Your task to perform on an android device: Do I have any events tomorrow? Image 0: 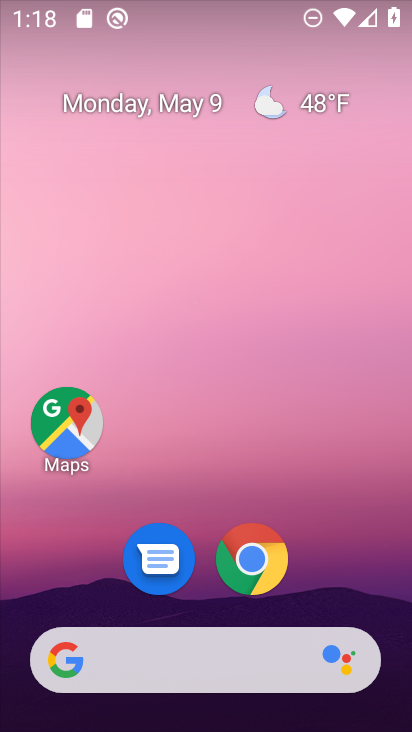
Step 0: drag from (220, 553) to (282, 222)
Your task to perform on an android device: Do I have any events tomorrow? Image 1: 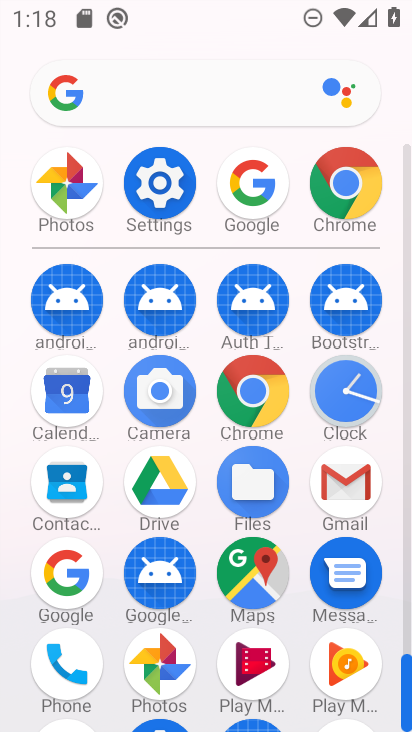
Step 1: drag from (198, 658) to (208, 336)
Your task to perform on an android device: Do I have any events tomorrow? Image 2: 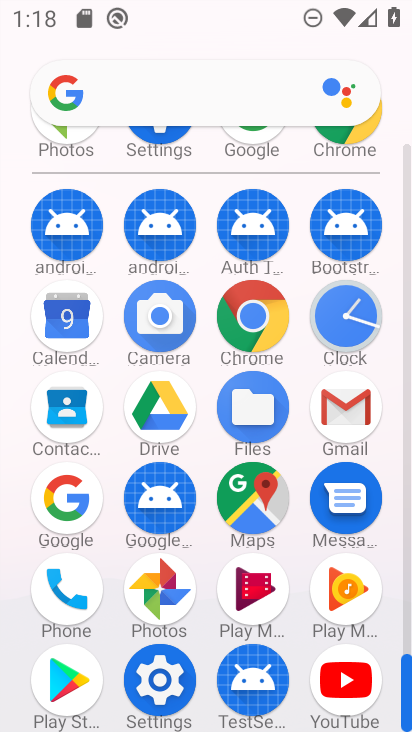
Step 2: drag from (203, 676) to (213, 431)
Your task to perform on an android device: Do I have any events tomorrow? Image 3: 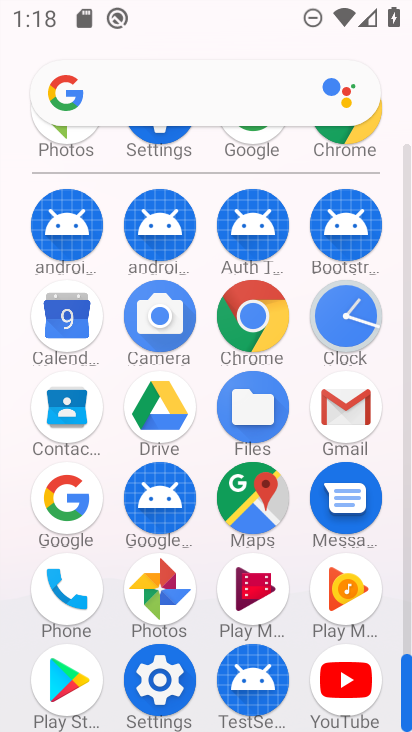
Step 3: click (77, 319)
Your task to perform on an android device: Do I have any events tomorrow? Image 4: 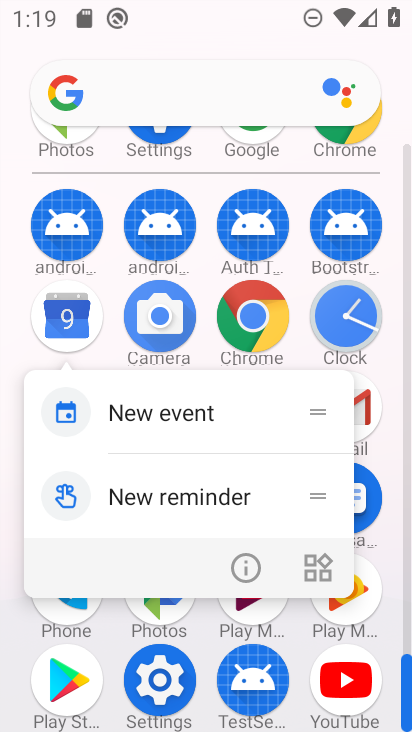
Step 4: click (246, 569)
Your task to perform on an android device: Do I have any events tomorrow? Image 5: 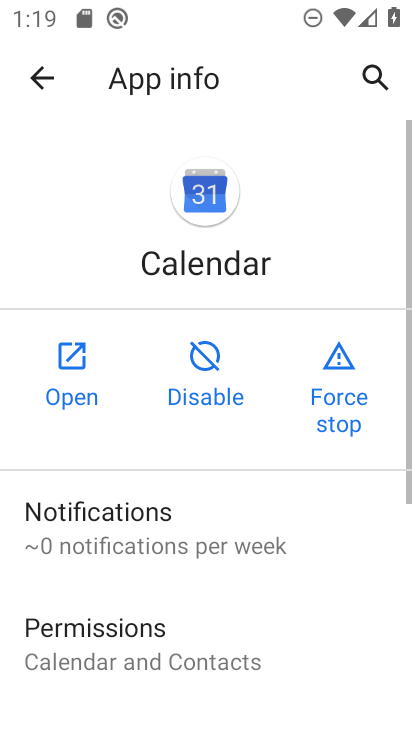
Step 5: click (98, 337)
Your task to perform on an android device: Do I have any events tomorrow? Image 6: 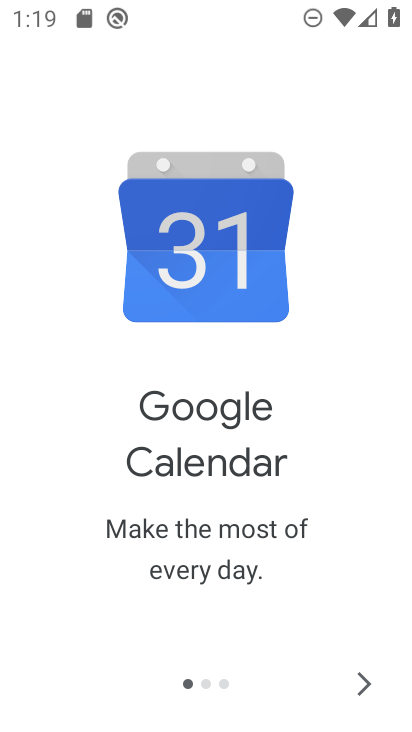
Step 6: click (351, 667)
Your task to perform on an android device: Do I have any events tomorrow? Image 7: 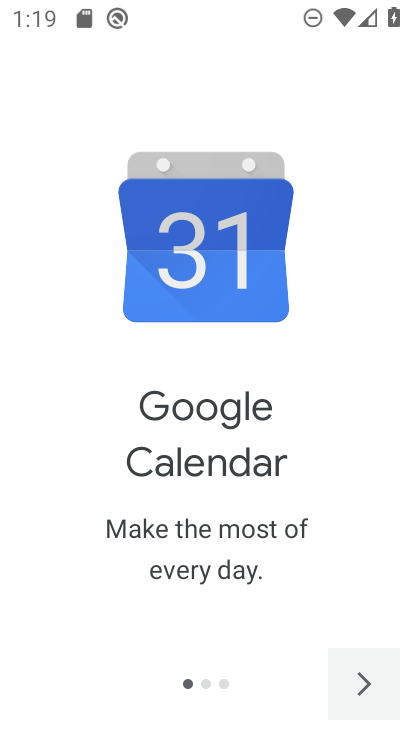
Step 7: click (351, 667)
Your task to perform on an android device: Do I have any events tomorrow? Image 8: 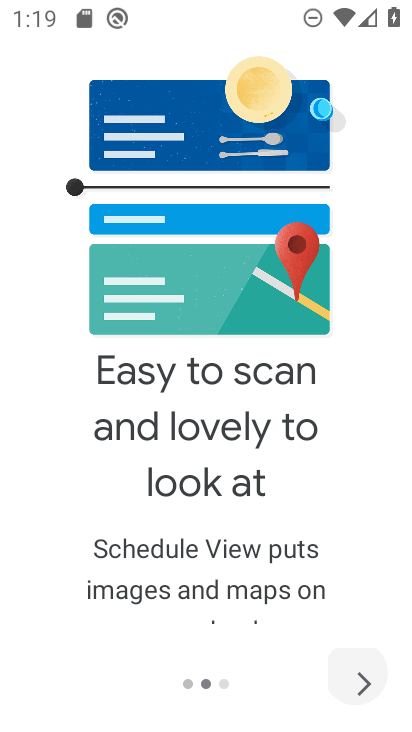
Step 8: click (351, 667)
Your task to perform on an android device: Do I have any events tomorrow? Image 9: 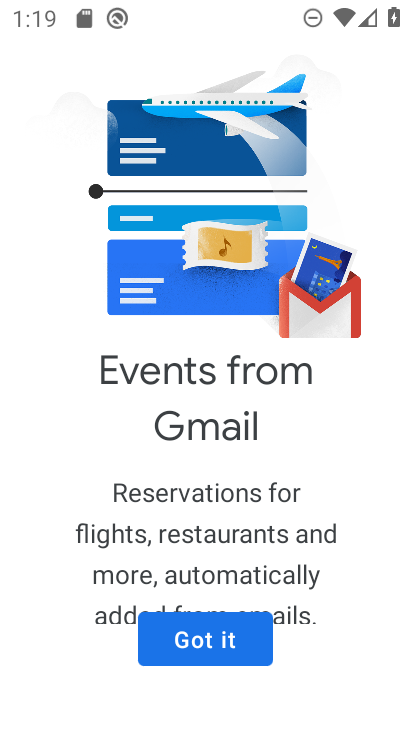
Step 9: click (351, 667)
Your task to perform on an android device: Do I have any events tomorrow? Image 10: 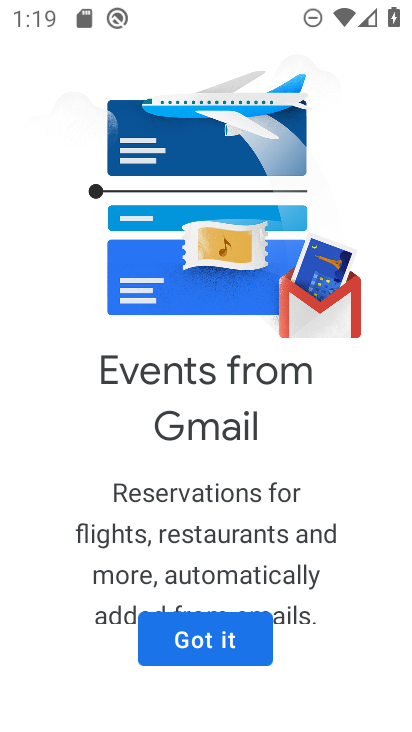
Step 10: click (124, 659)
Your task to perform on an android device: Do I have any events tomorrow? Image 11: 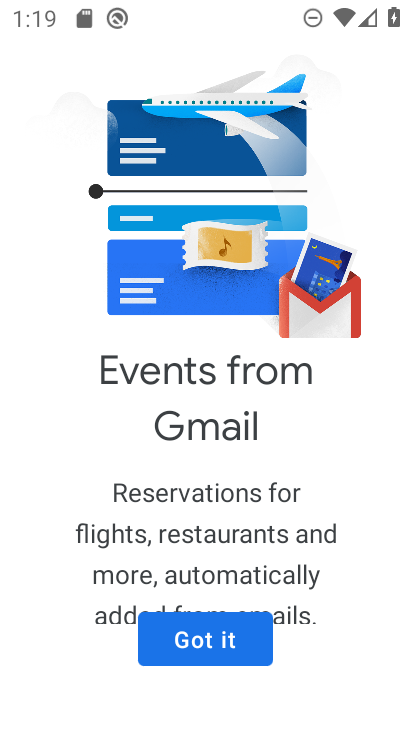
Step 11: click (213, 634)
Your task to perform on an android device: Do I have any events tomorrow? Image 12: 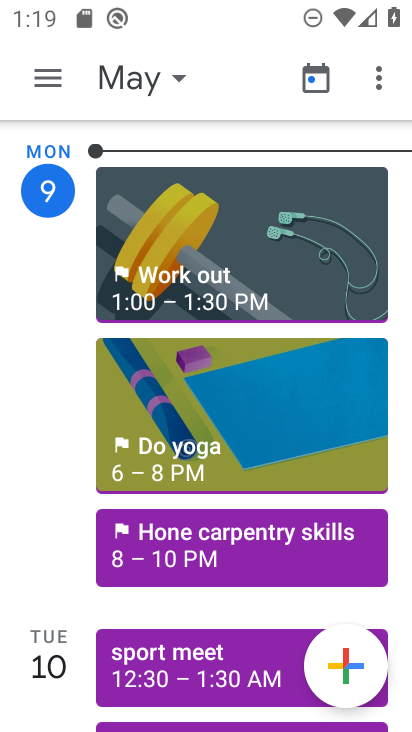
Step 12: drag from (179, 595) to (339, 128)
Your task to perform on an android device: Do I have any events tomorrow? Image 13: 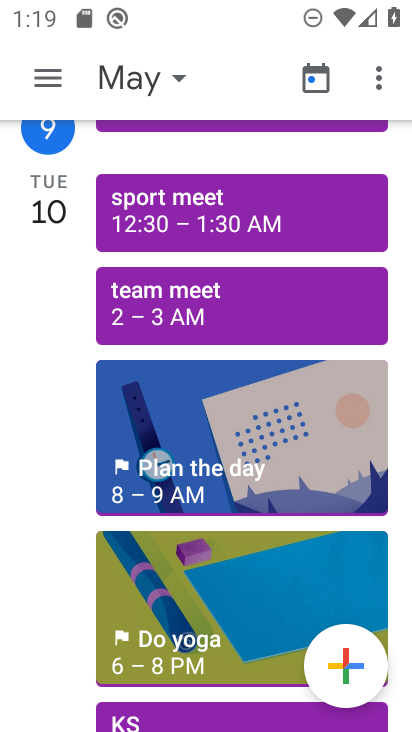
Step 13: drag from (238, 702) to (273, 333)
Your task to perform on an android device: Do I have any events tomorrow? Image 14: 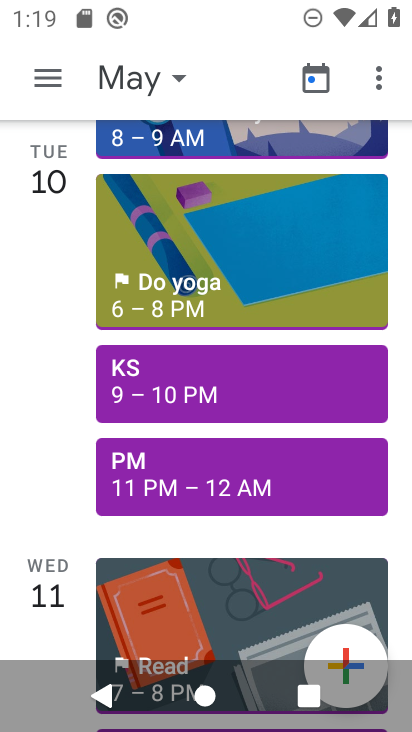
Step 14: click (173, 72)
Your task to perform on an android device: Do I have any events tomorrow? Image 15: 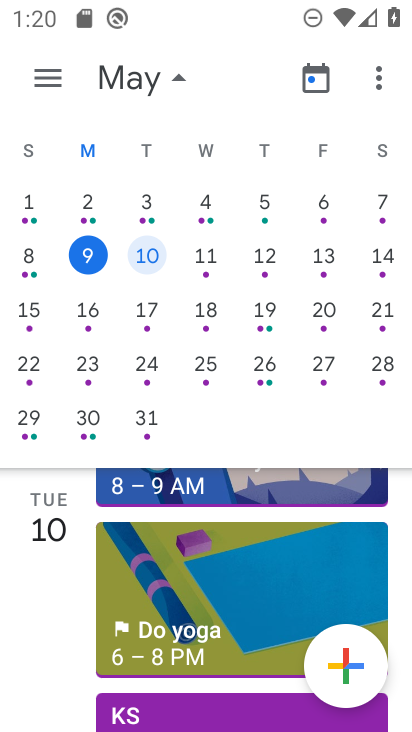
Step 15: click (87, 237)
Your task to perform on an android device: Do I have any events tomorrow? Image 16: 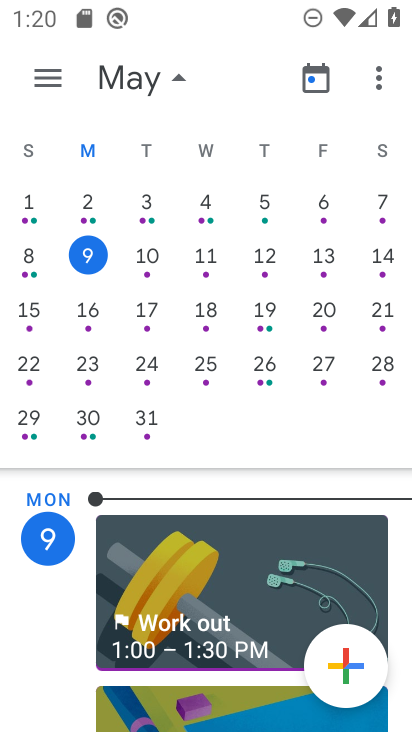
Step 16: click (95, 249)
Your task to perform on an android device: Do I have any events tomorrow? Image 17: 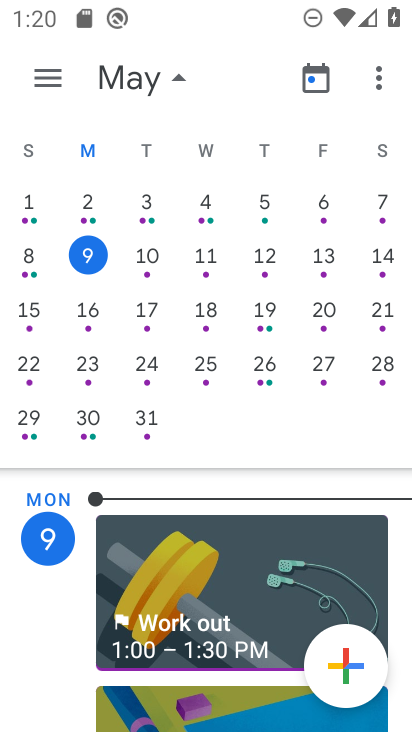
Step 17: drag from (244, 657) to (291, 236)
Your task to perform on an android device: Do I have any events tomorrow? Image 18: 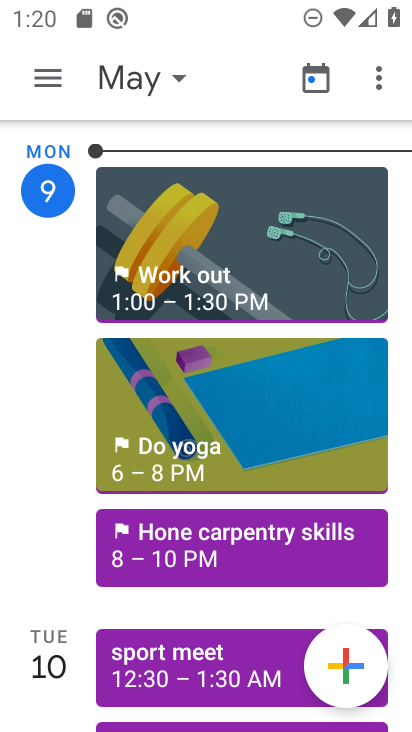
Step 18: drag from (237, 483) to (277, 214)
Your task to perform on an android device: Do I have any events tomorrow? Image 19: 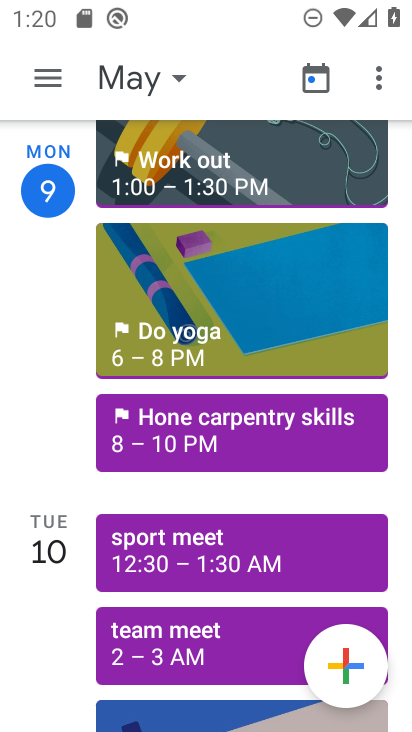
Step 19: drag from (218, 419) to (282, 133)
Your task to perform on an android device: Do I have any events tomorrow? Image 20: 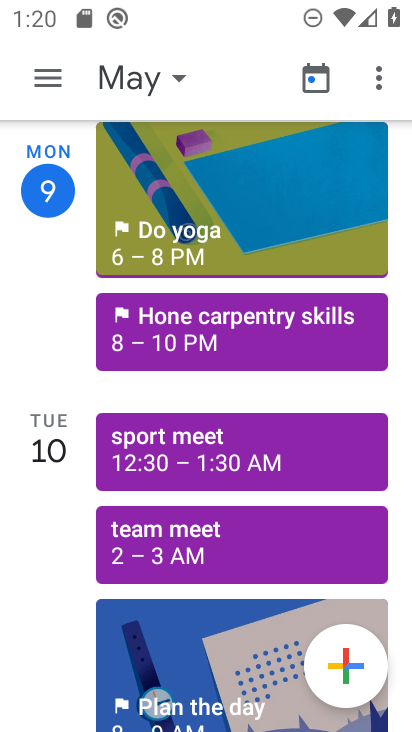
Step 20: drag from (190, 569) to (324, 130)
Your task to perform on an android device: Do I have any events tomorrow? Image 21: 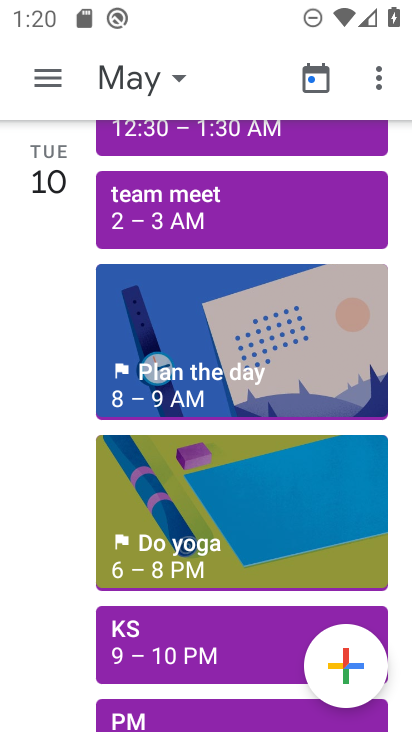
Step 21: click (152, 70)
Your task to perform on an android device: Do I have any events tomorrow? Image 22: 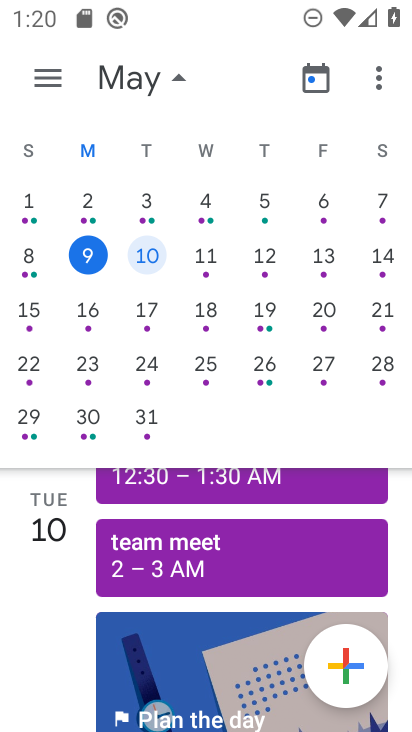
Step 22: click (177, 73)
Your task to perform on an android device: Do I have any events tomorrow? Image 23: 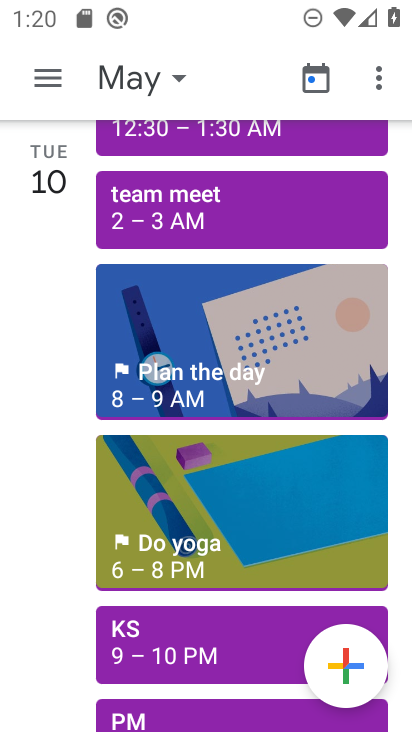
Step 23: click (177, 73)
Your task to perform on an android device: Do I have any events tomorrow? Image 24: 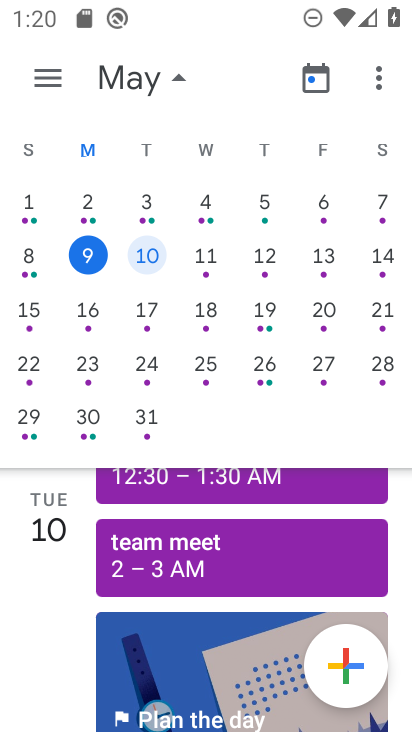
Step 24: click (177, 73)
Your task to perform on an android device: Do I have any events tomorrow? Image 25: 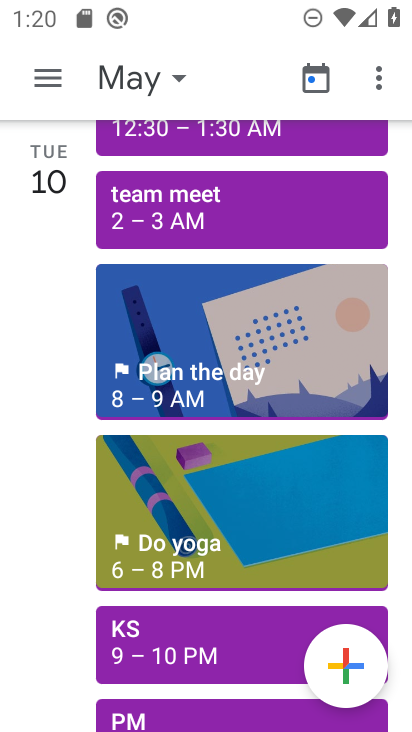
Step 25: click (177, 71)
Your task to perform on an android device: Do I have any events tomorrow? Image 26: 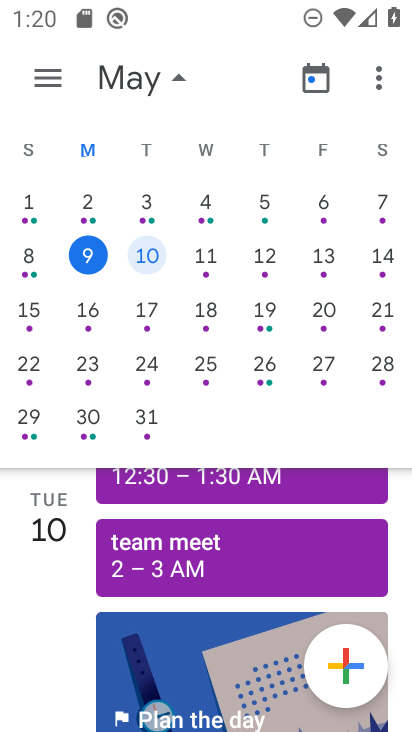
Step 26: click (177, 71)
Your task to perform on an android device: Do I have any events tomorrow? Image 27: 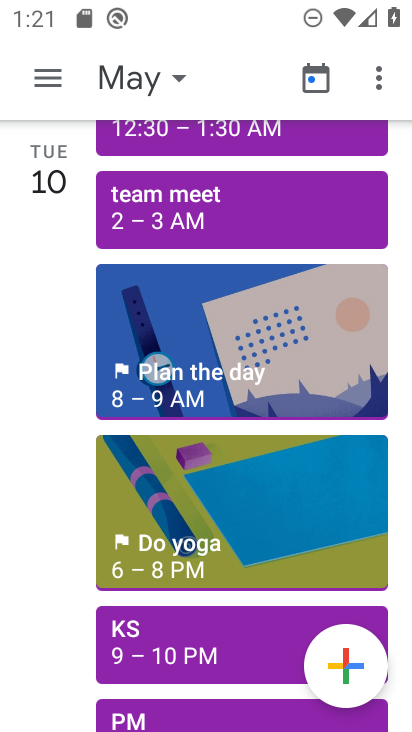
Step 27: drag from (203, 670) to (242, 323)
Your task to perform on an android device: Do I have any events tomorrow? Image 28: 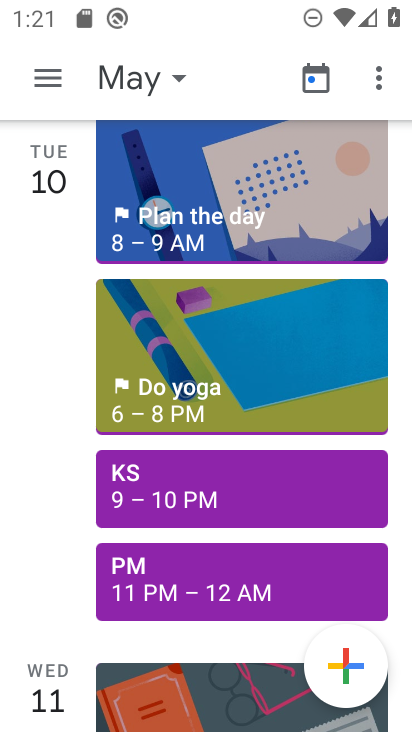
Step 28: click (150, 51)
Your task to perform on an android device: Do I have any events tomorrow? Image 29: 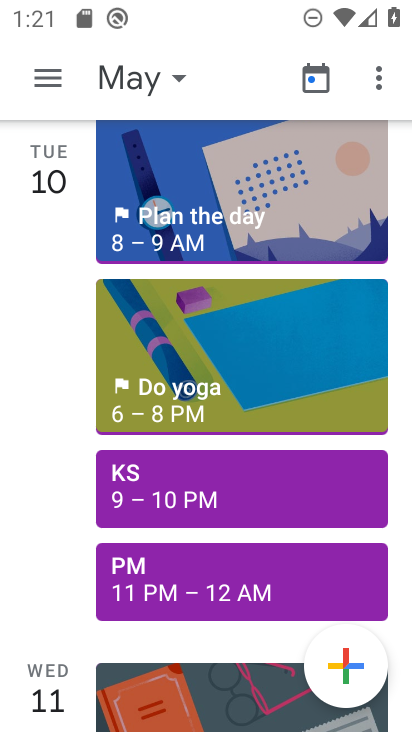
Step 29: click (152, 76)
Your task to perform on an android device: Do I have any events tomorrow? Image 30: 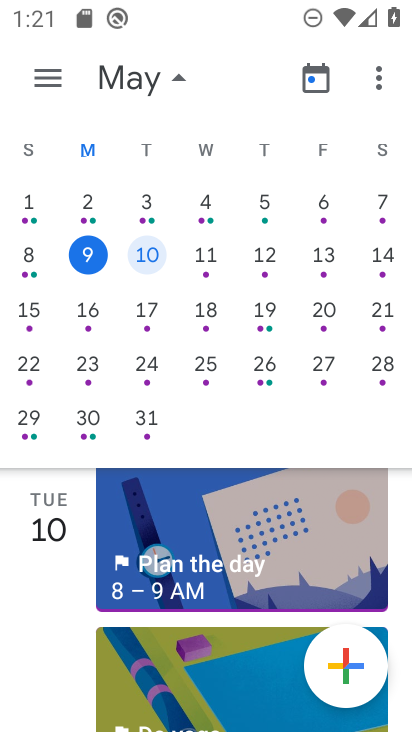
Step 30: drag from (249, 630) to (272, 247)
Your task to perform on an android device: Do I have any events tomorrow? Image 31: 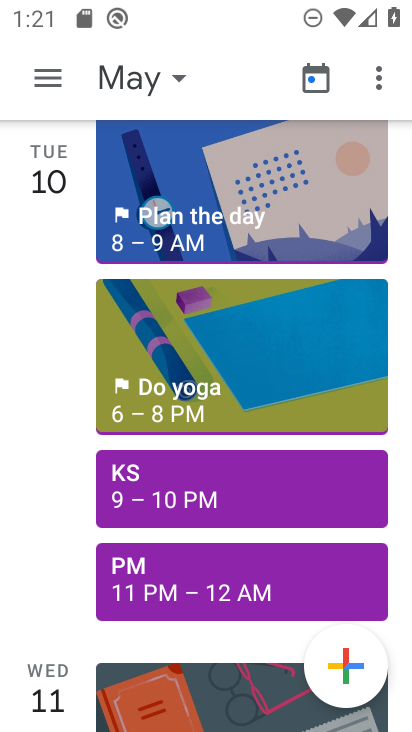
Step 31: drag from (257, 571) to (283, 233)
Your task to perform on an android device: Do I have any events tomorrow? Image 32: 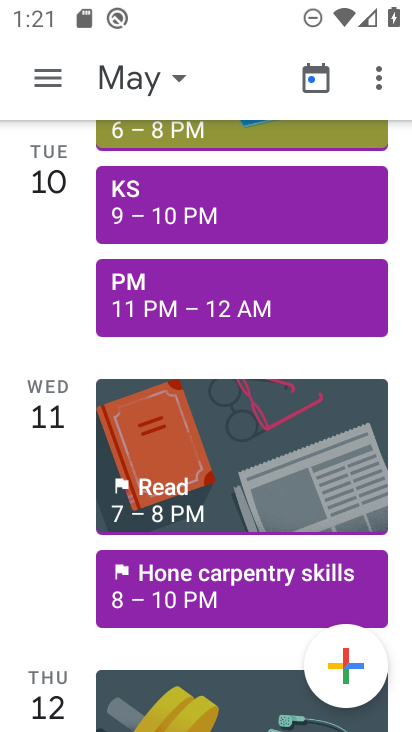
Step 32: click (134, 87)
Your task to perform on an android device: Do I have any events tomorrow? Image 33: 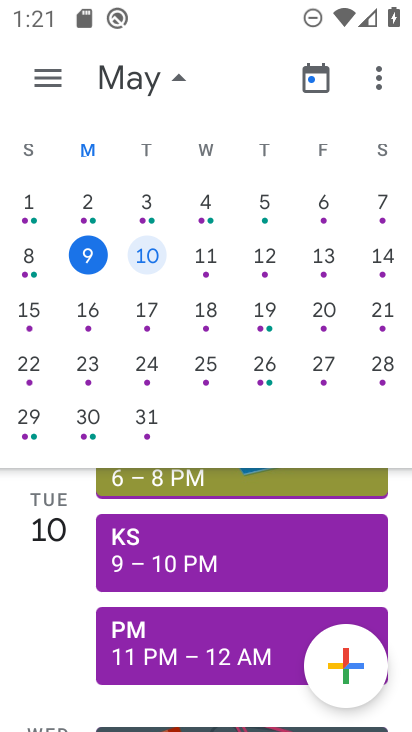
Step 33: click (89, 272)
Your task to perform on an android device: Do I have any events tomorrow? Image 34: 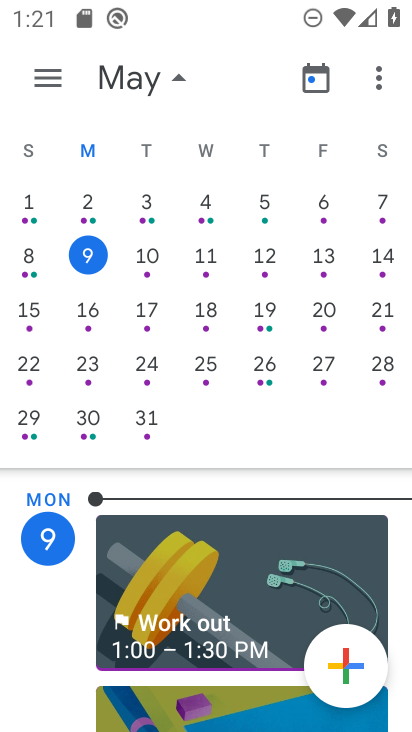
Step 34: task complete